Your task to perform on an android device: open app "Grab" Image 0: 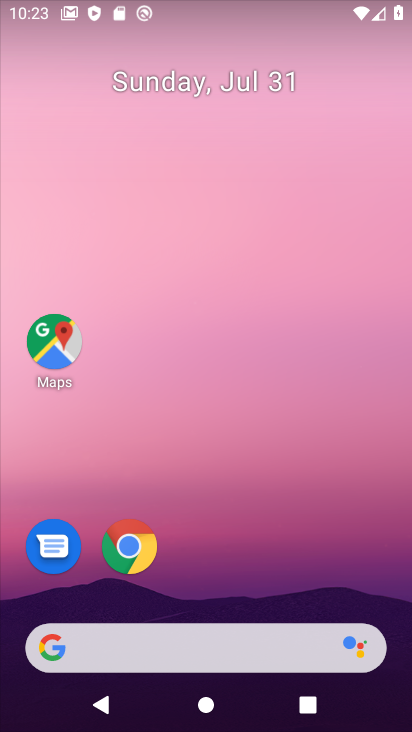
Step 0: drag from (233, 635) to (266, 2)
Your task to perform on an android device: open app "Grab" Image 1: 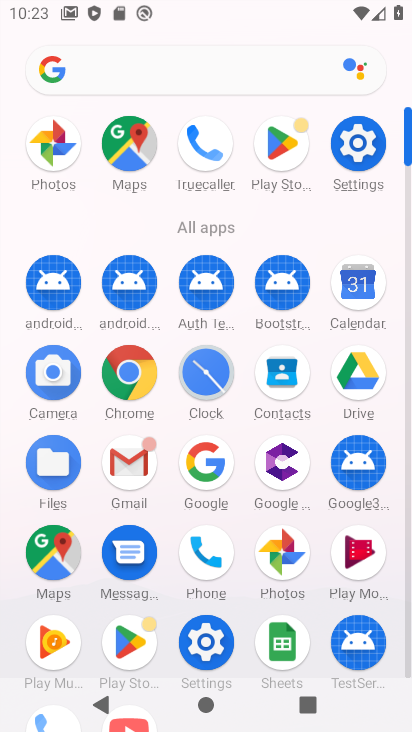
Step 1: click (293, 141)
Your task to perform on an android device: open app "Grab" Image 2: 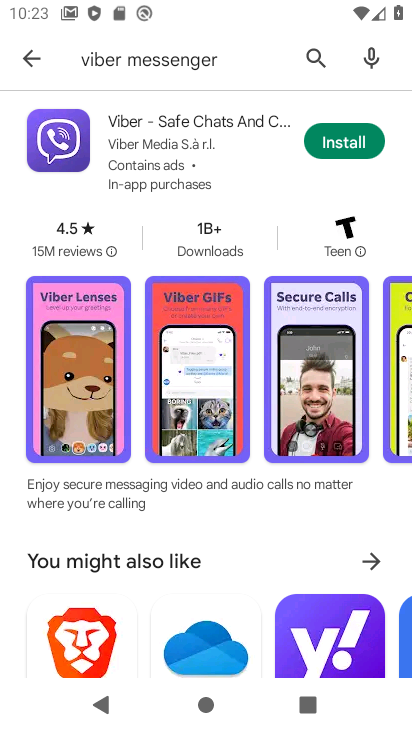
Step 2: click (312, 58)
Your task to perform on an android device: open app "Grab" Image 3: 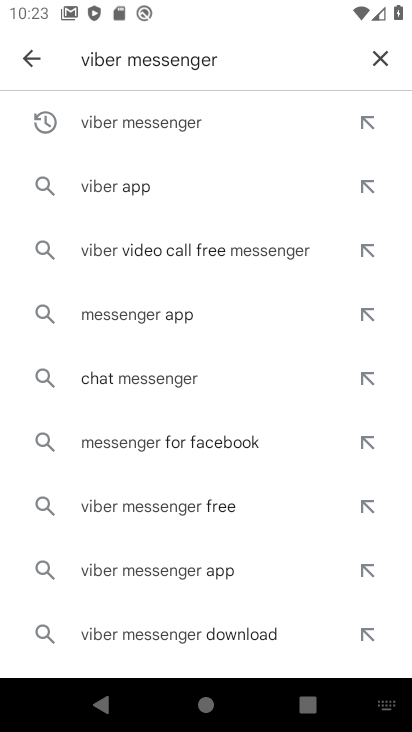
Step 3: click (379, 60)
Your task to perform on an android device: open app "Grab" Image 4: 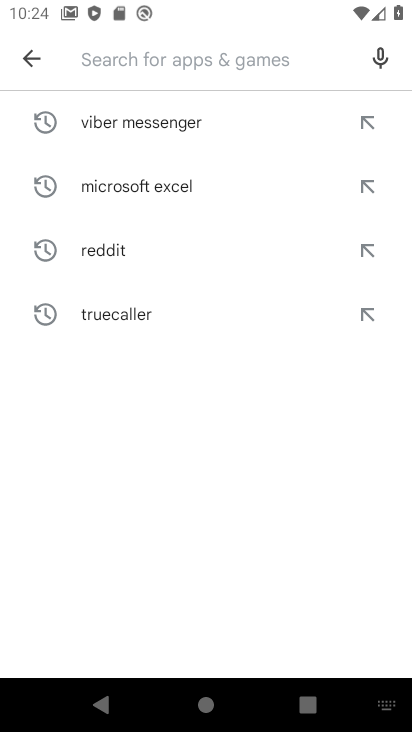
Step 4: click (298, 66)
Your task to perform on an android device: open app "Grab" Image 5: 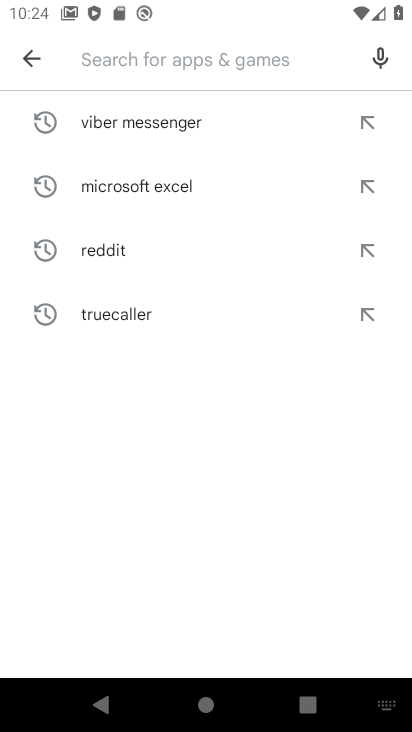
Step 5: type "grab"
Your task to perform on an android device: open app "Grab" Image 6: 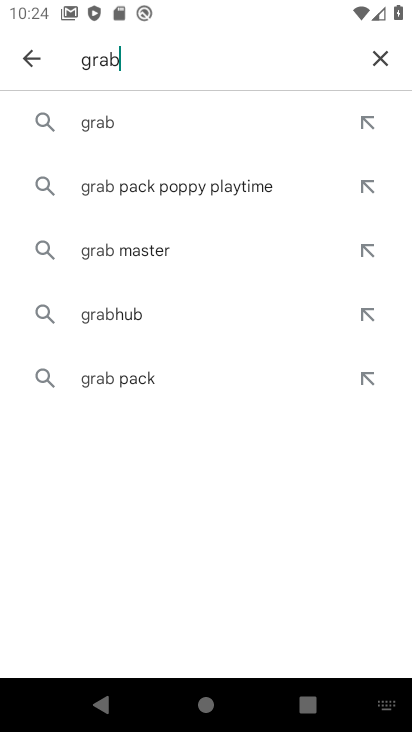
Step 6: click (248, 143)
Your task to perform on an android device: open app "Grab" Image 7: 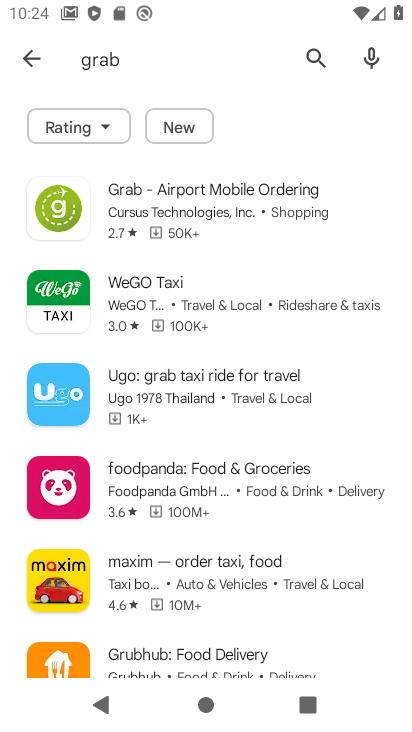
Step 7: click (261, 215)
Your task to perform on an android device: open app "Grab" Image 8: 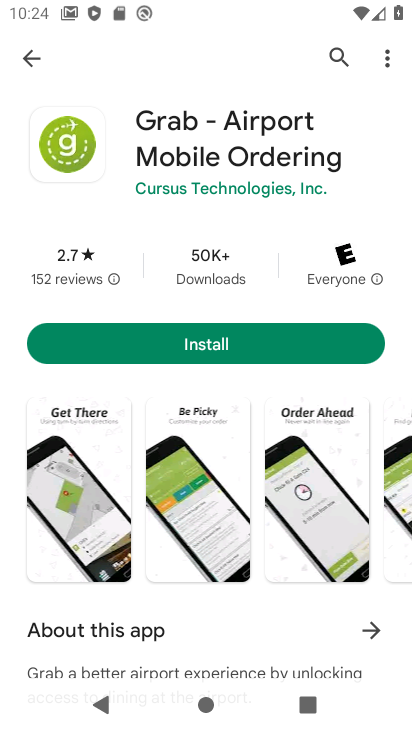
Step 8: task complete